Your task to perform on an android device: turn off location history Image 0: 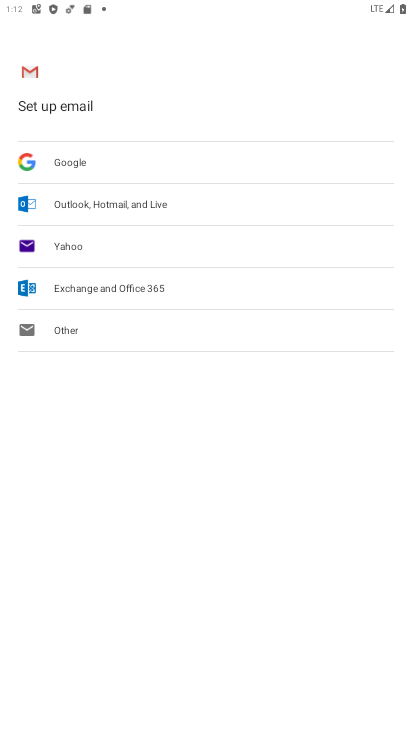
Step 0: press back button
Your task to perform on an android device: turn off location history Image 1: 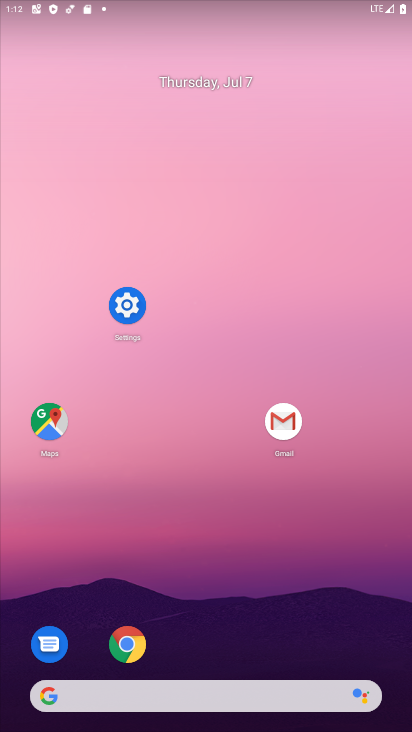
Step 1: drag from (391, 594) to (353, 85)
Your task to perform on an android device: turn off location history Image 2: 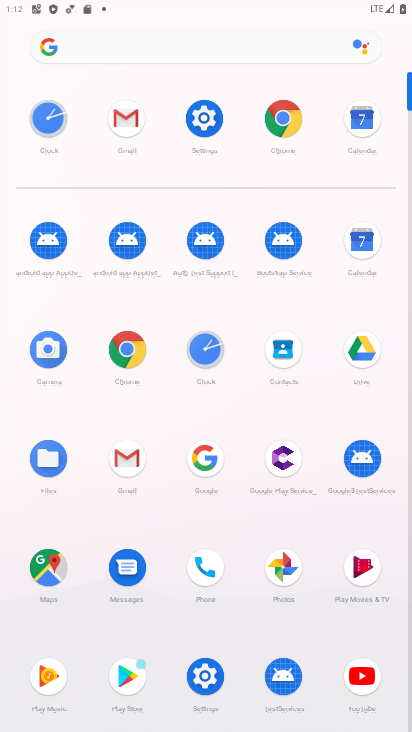
Step 2: click (208, 132)
Your task to perform on an android device: turn off location history Image 3: 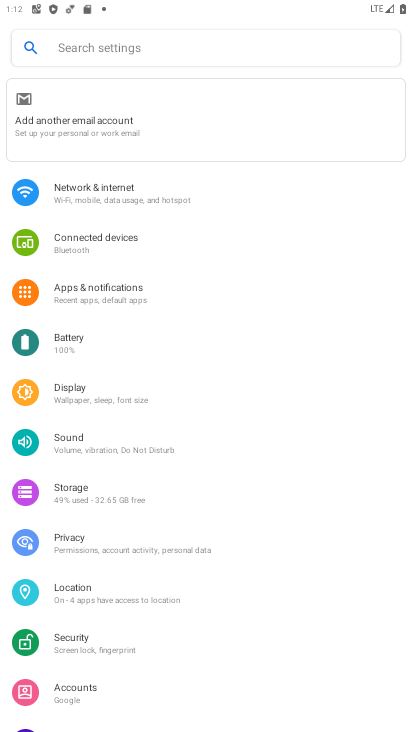
Step 3: click (79, 587)
Your task to perform on an android device: turn off location history Image 4: 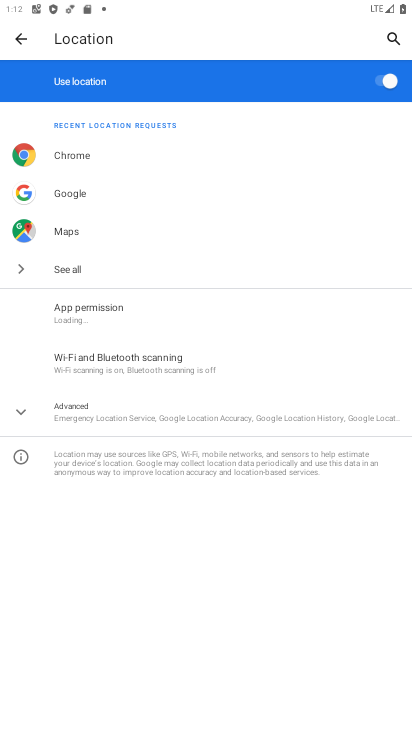
Step 4: click (381, 83)
Your task to perform on an android device: turn off location history Image 5: 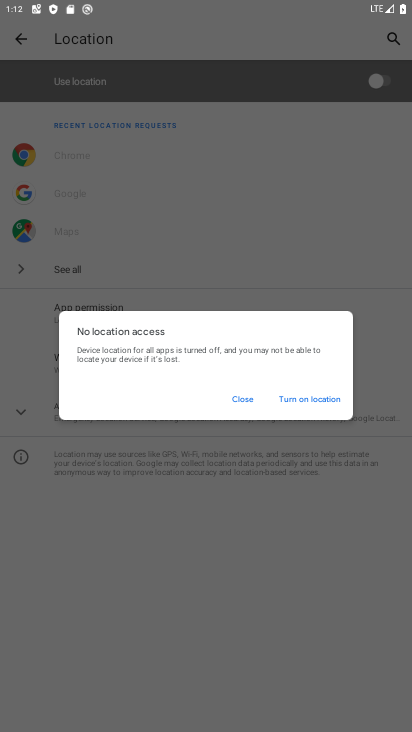
Step 5: click (384, 79)
Your task to perform on an android device: turn off location history Image 6: 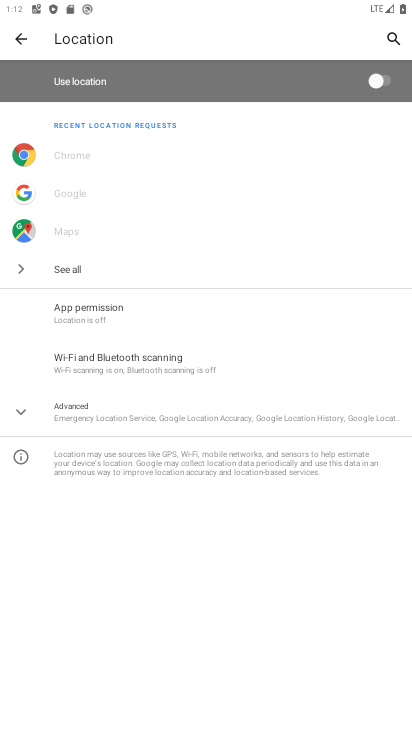
Step 6: click (385, 85)
Your task to perform on an android device: turn off location history Image 7: 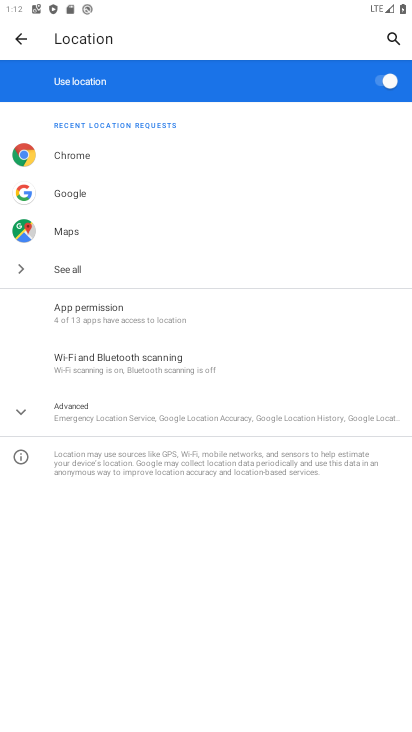
Step 7: click (29, 408)
Your task to perform on an android device: turn off location history Image 8: 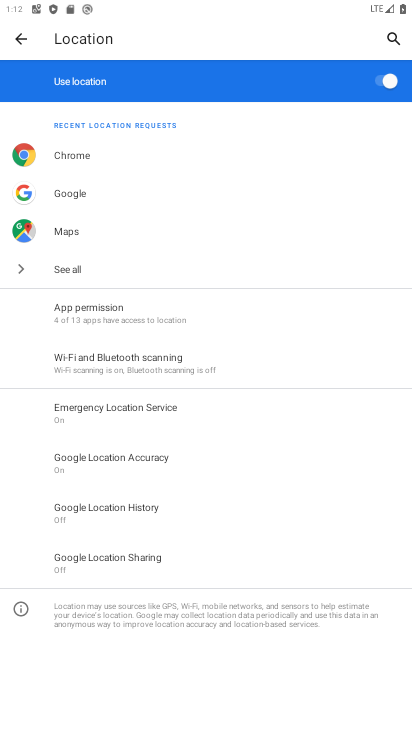
Step 8: click (104, 517)
Your task to perform on an android device: turn off location history Image 9: 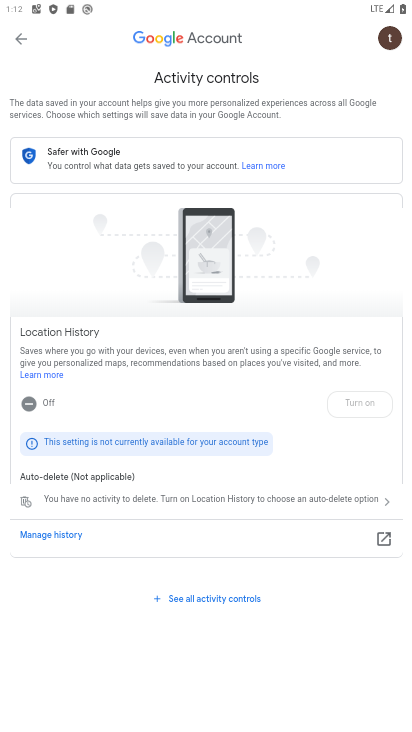
Step 9: task complete